Your task to perform on an android device: Go to wifi settings Image 0: 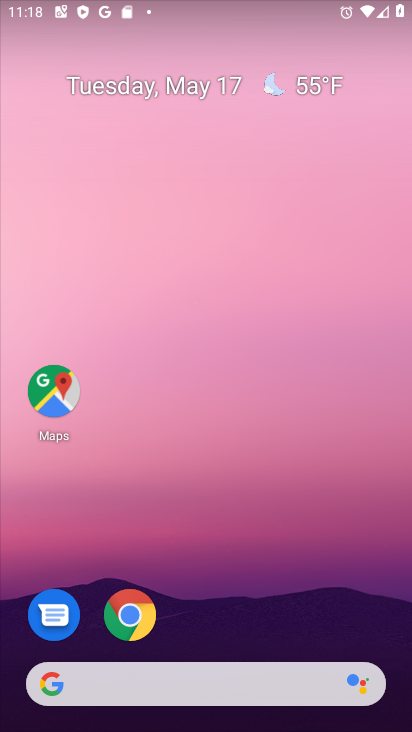
Step 0: drag from (288, 577) to (313, 149)
Your task to perform on an android device: Go to wifi settings Image 1: 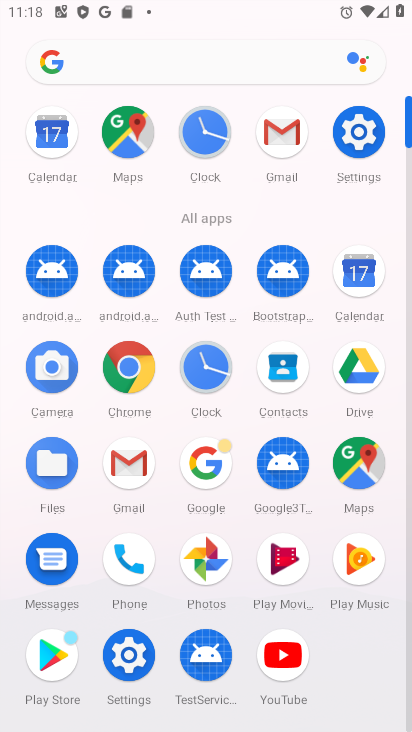
Step 1: click (377, 116)
Your task to perform on an android device: Go to wifi settings Image 2: 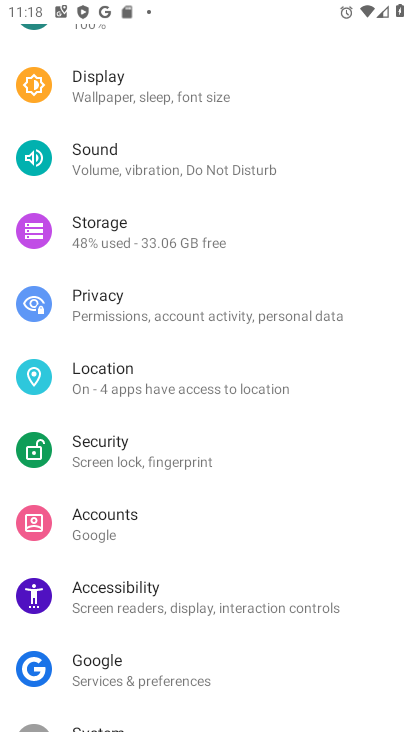
Step 2: drag from (242, 135) to (156, 633)
Your task to perform on an android device: Go to wifi settings Image 3: 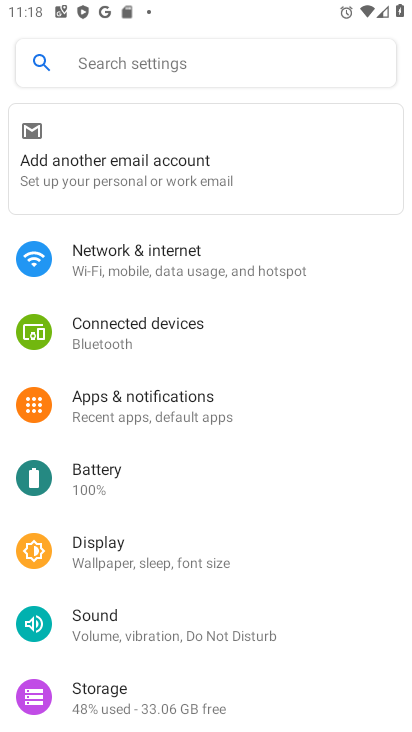
Step 3: click (198, 262)
Your task to perform on an android device: Go to wifi settings Image 4: 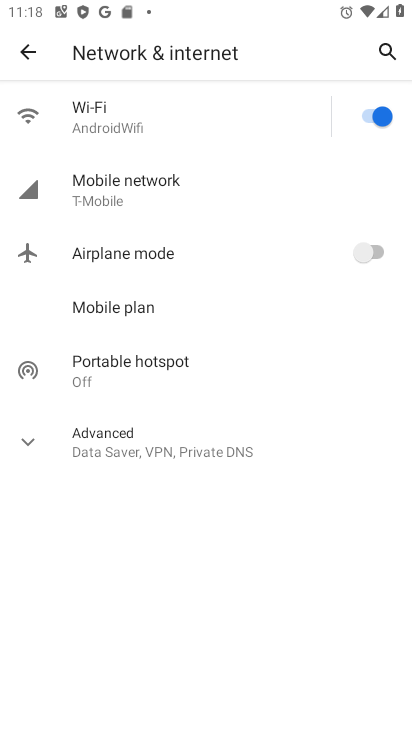
Step 4: click (210, 143)
Your task to perform on an android device: Go to wifi settings Image 5: 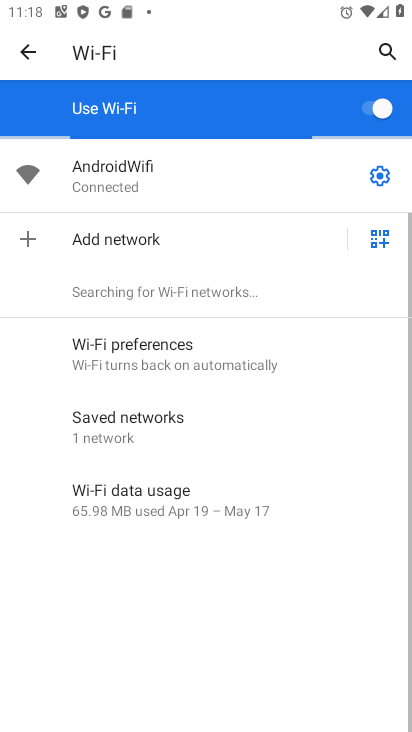
Step 5: click (377, 180)
Your task to perform on an android device: Go to wifi settings Image 6: 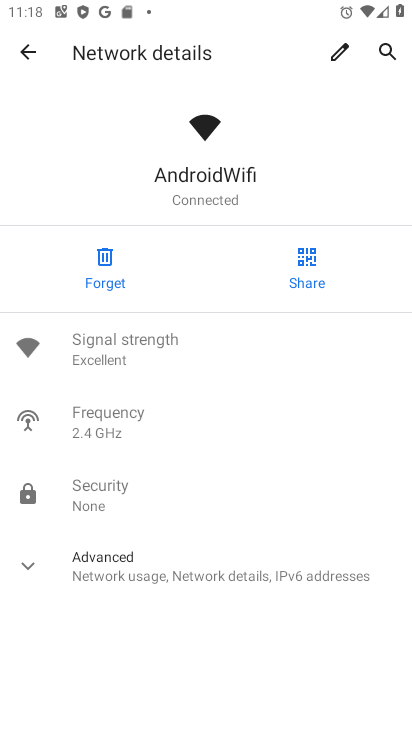
Step 6: task complete